Your task to perform on an android device: delete the emails in spam in the gmail app Image 0: 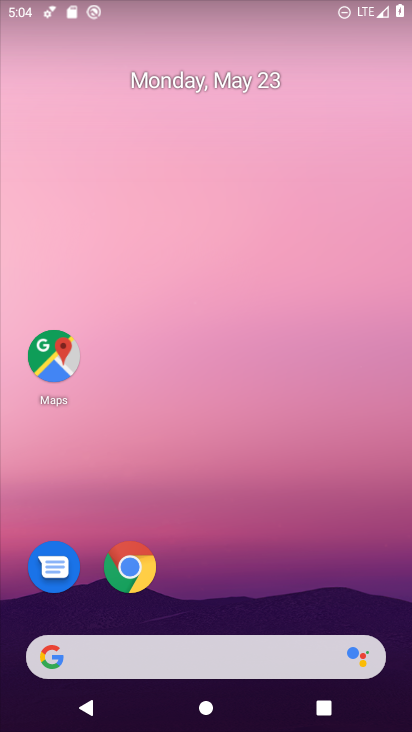
Step 0: drag from (259, 590) to (243, 173)
Your task to perform on an android device: delete the emails in spam in the gmail app Image 1: 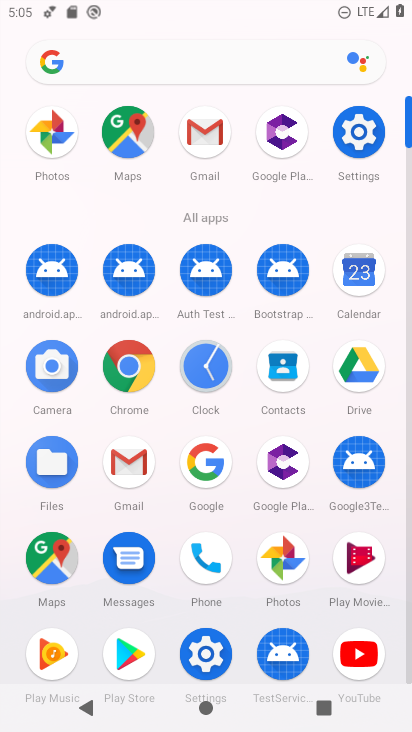
Step 1: click (204, 131)
Your task to perform on an android device: delete the emails in spam in the gmail app Image 2: 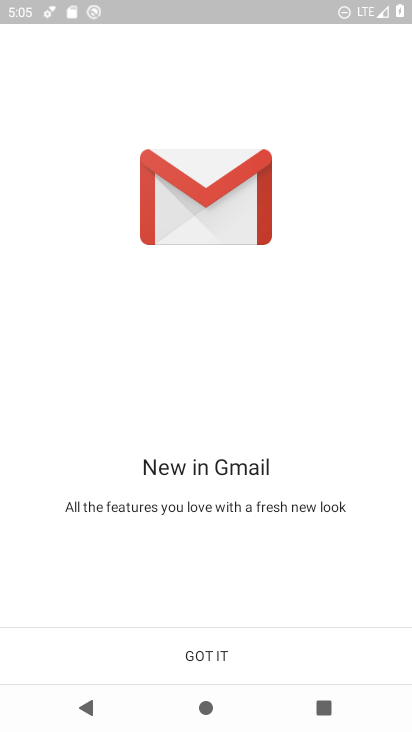
Step 2: click (192, 663)
Your task to perform on an android device: delete the emails in spam in the gmail app Image 3: 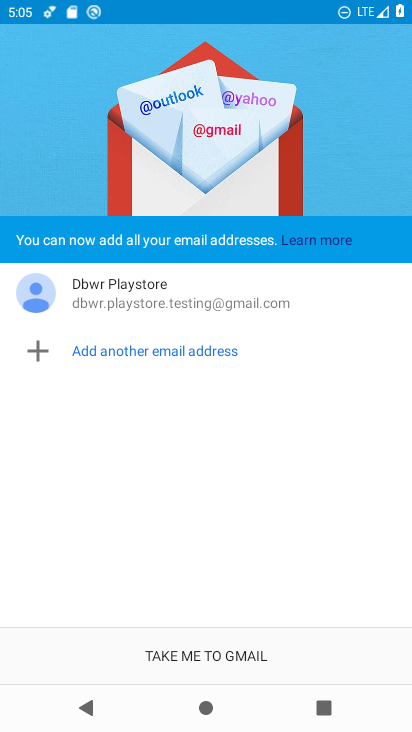
Step 3: click (196, 660)
Your task to perform on an android device: delete the emails in spam in the gmail app Image 4: 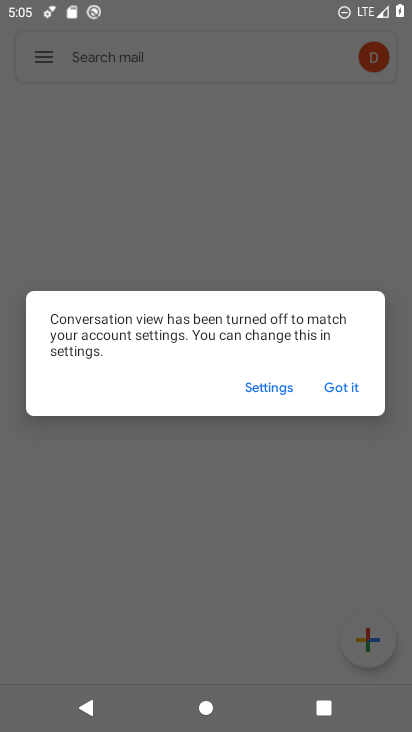
Step 4: click (342, 387)
Your task to perform on an android device: delete the emails in spam in the gmail app Image 5: 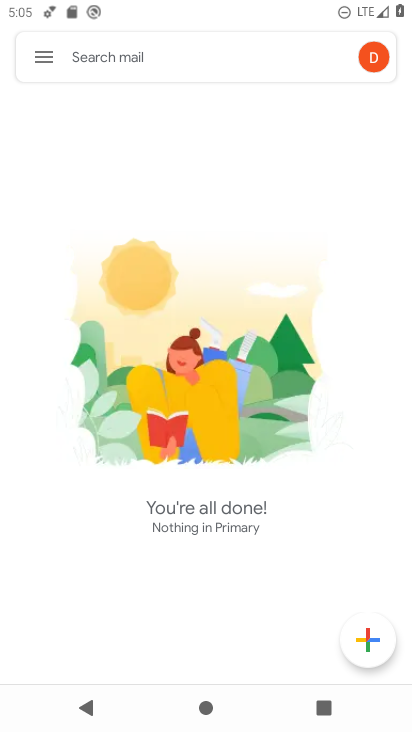
Step 5: click (50, 58)
Your task to perform on an android device: delete the emails in spam in the gmail app Image 6: 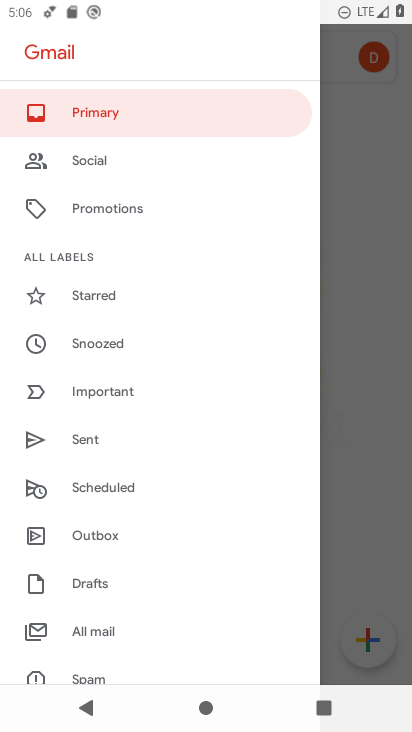
Step 6: drag from (140, 545) to (196, 365)
Your task to perform on an android device: delete the emails in spam in the gmail app Image 7: 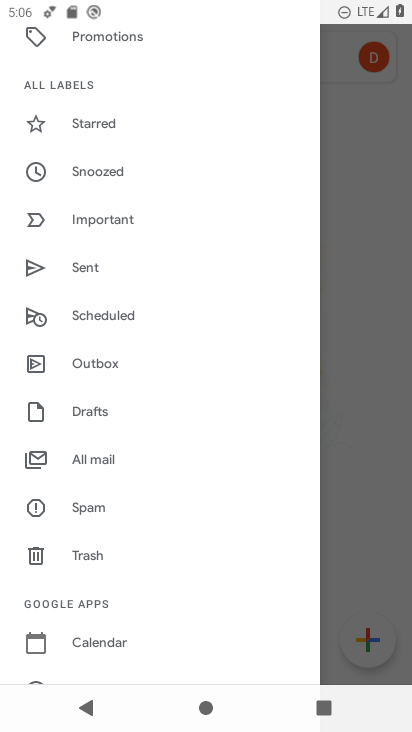
Step 7: click (103, 505)
Your task to perform on an android device: delete the emails in spam in the gmail app Image 8: 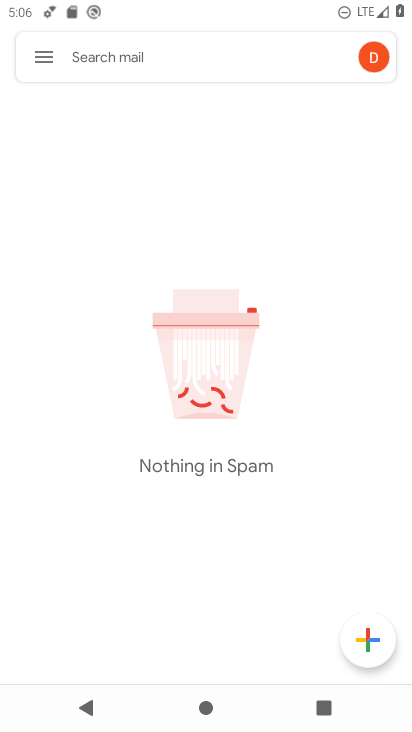
Step 8: task complete